Your task to perform on an android device: View the shopping cart on costco. Search for logitech g910 on costco, select the first entry, and add it to the cart. Image 0: 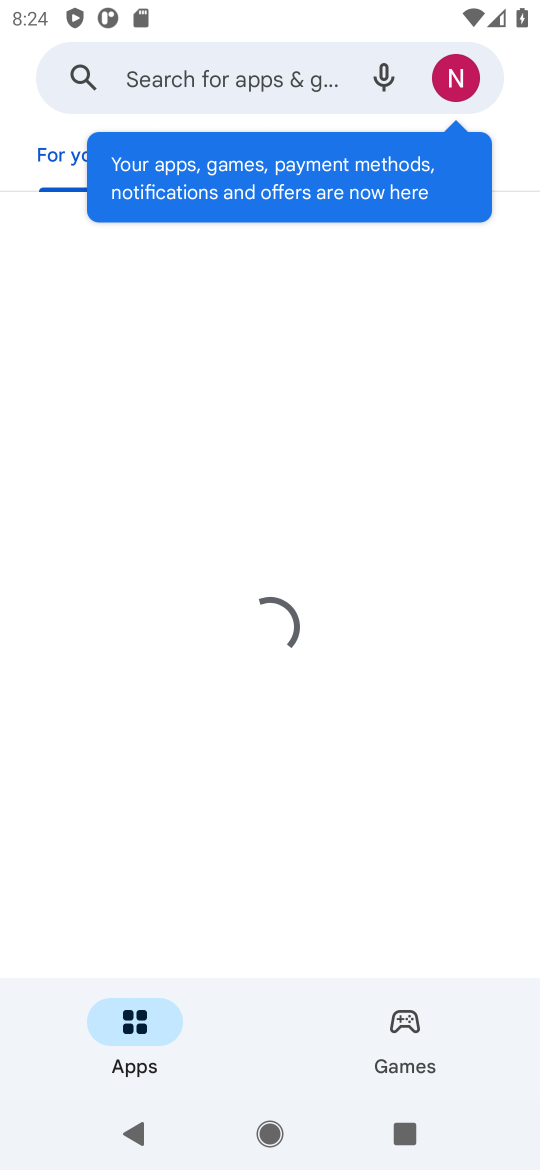
Step 0: press home button
Your task to perform on an android device: View the shopping cart on costco. Search for logitech g910 on costco, select the first entry, and add it to the cart. Image 1: 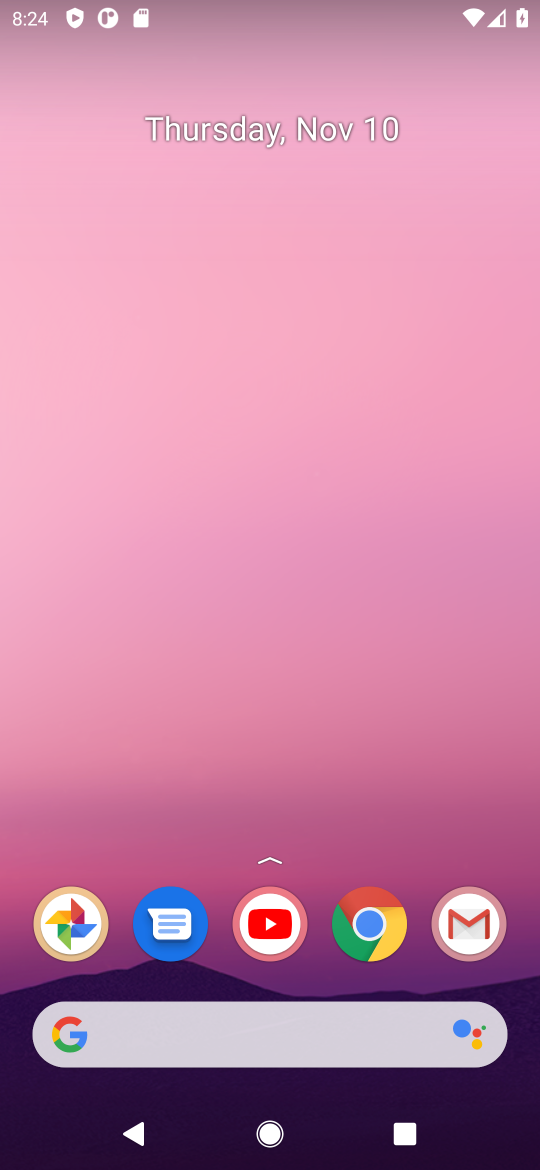
Step 1: click (373, 934)
Your task to perform on an android device: View the shopping cart on costco. Search for logitech g910 on costco, select the first entry, and add it to the cart. Image 2: 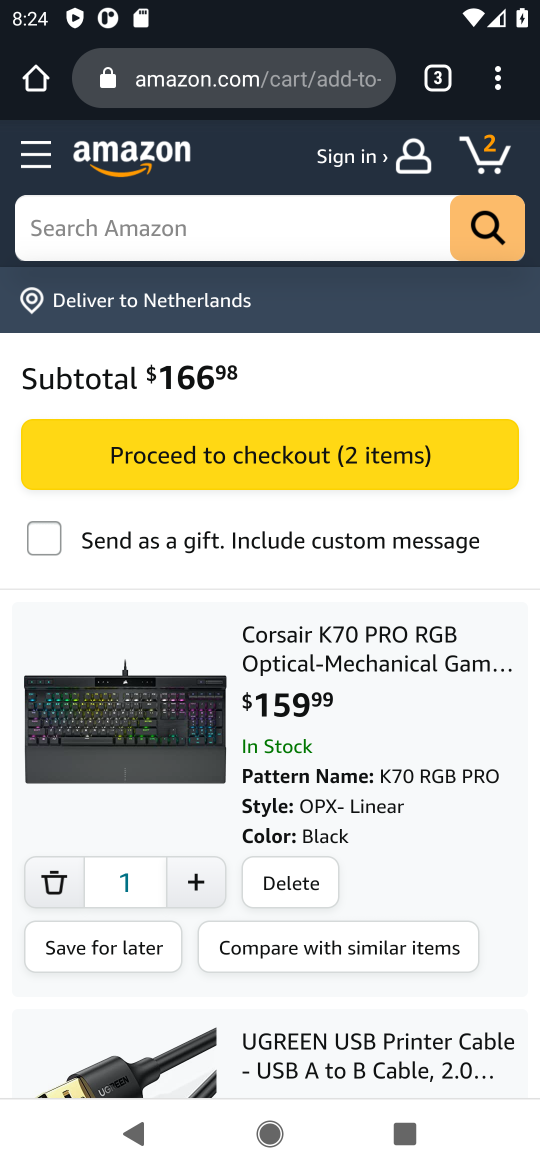
Step 2: click (225, 72)
Your task to perform on an android device: View the shopping cart on costco. Search for logitech g910 on costco, select the first entry, and add it to the cart. Image 3: 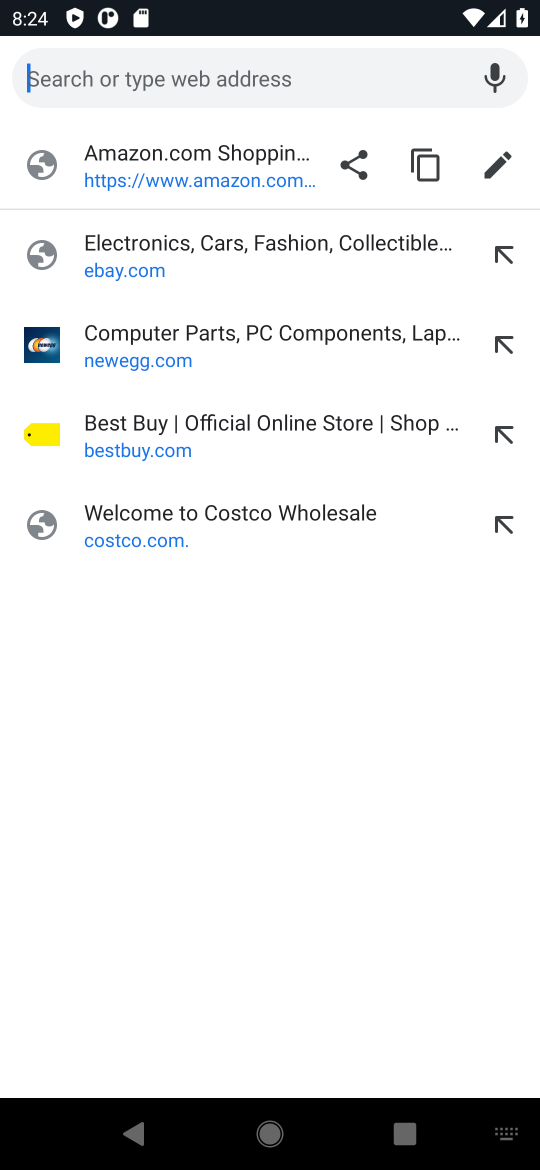
Step 3: click (132, 530)
Your task to perform on an android device: View the shopping cart on costco. Search for logitech g910 on costco, select the first entry, and add it to the cart. Image 4: 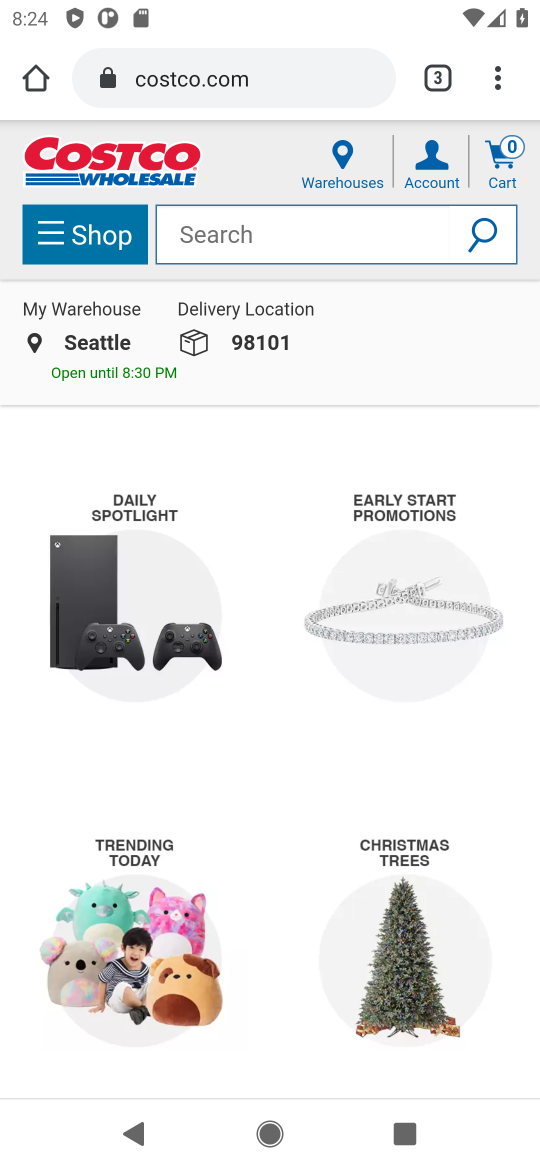
Step 4: click (509, 169)
Your task to perform on an android device: View the shopping cart on costco. Search for logitech g910 on costco, select the first entry, and add it to the cart. Image 5: 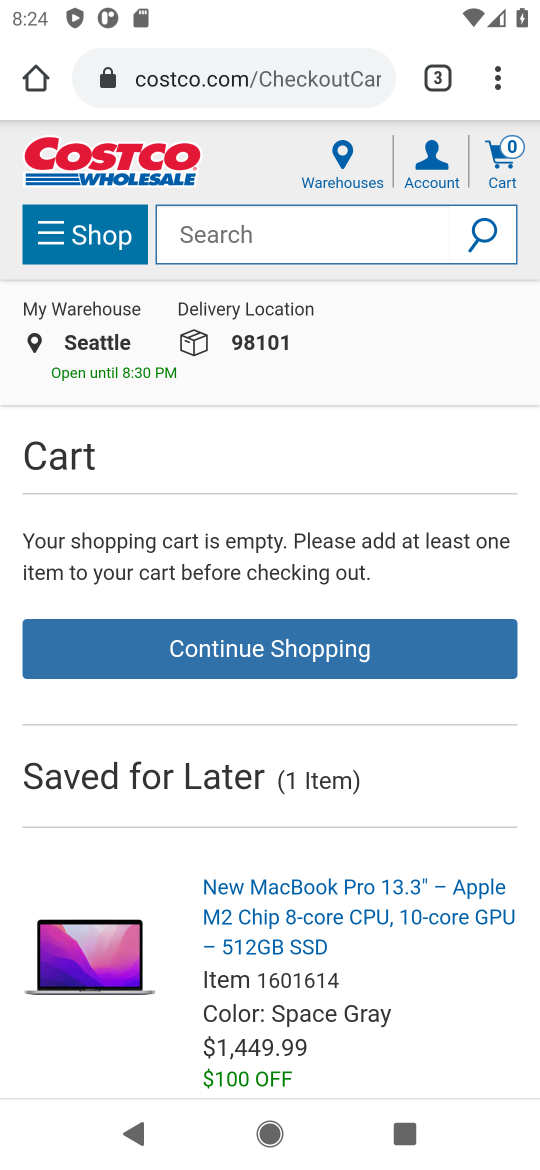
Step 5: click (305, 248)
Your task to perform on an android device: View the shopping cart on costco. Search for logitech g910 on costco, select the first entry, and add it to the cart. Image 6: 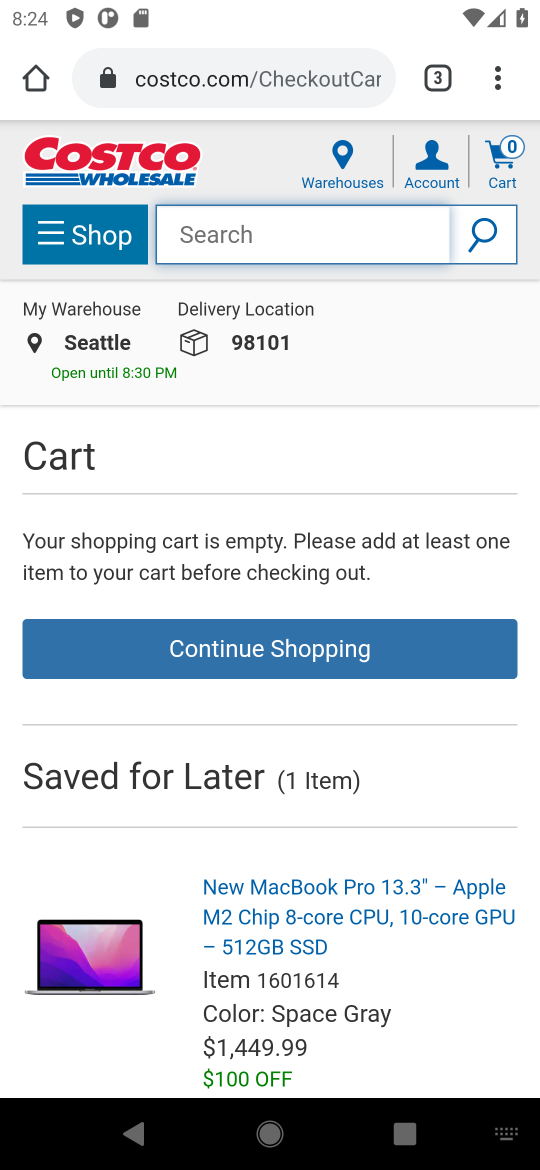
Step 6: type " logitech g910 "
Your task to perform on an android device: View the shopping cart on costco. Search for logitech g910 on costco, select the first entry, and add it to the cart. Image 7: 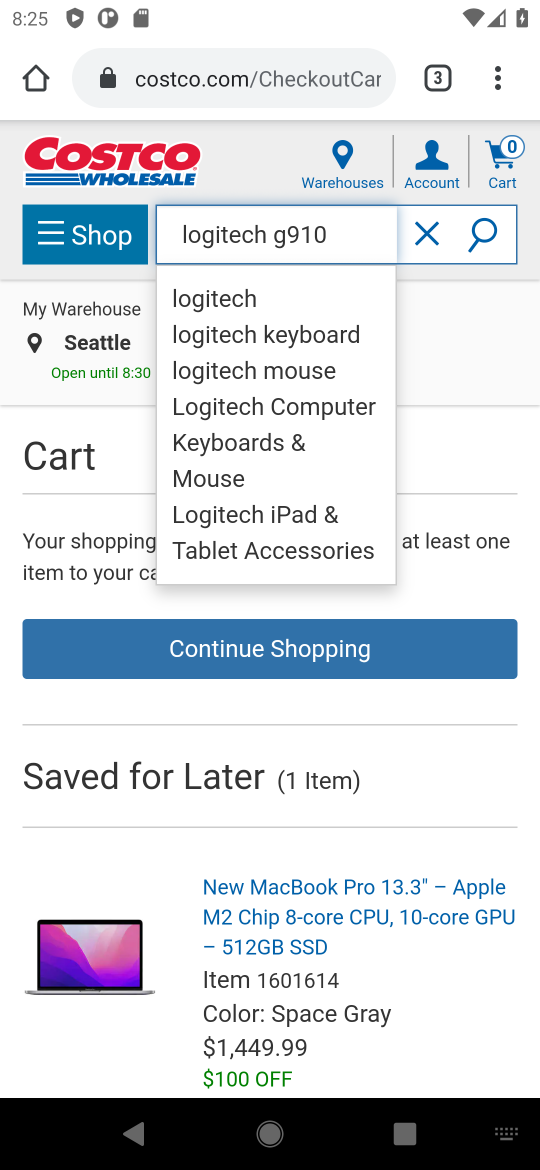
Step 7: click (491, 226)
Your task to perform on an android device: View the shopping cart on costco. Search for logitech g910 on costco, select the first entry, and add it to the cart. Image 8: 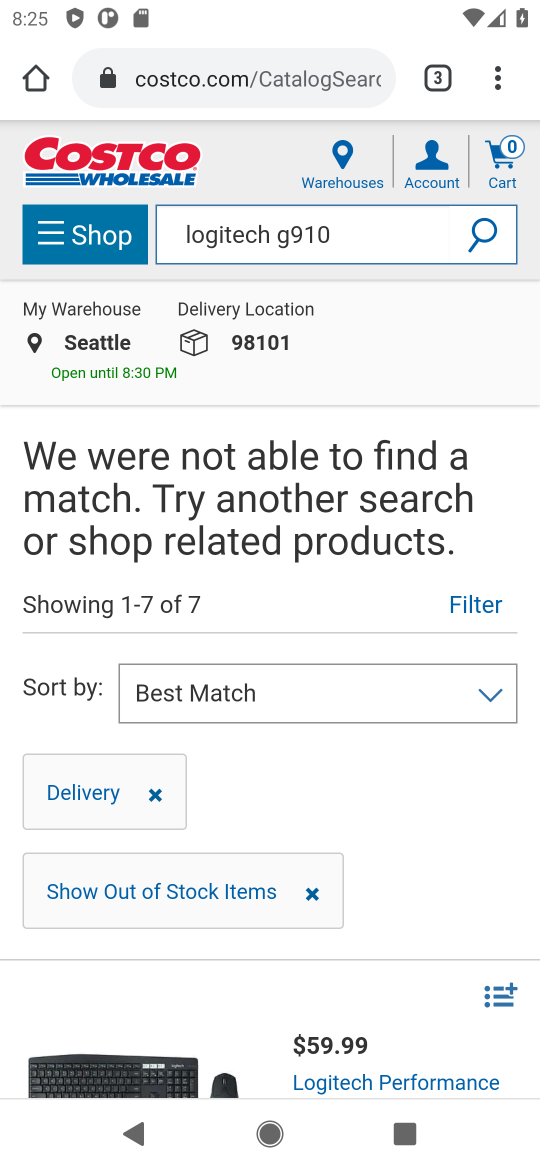
Step 8: task complete